Your task to perform on an android device: Open maps Image 0: 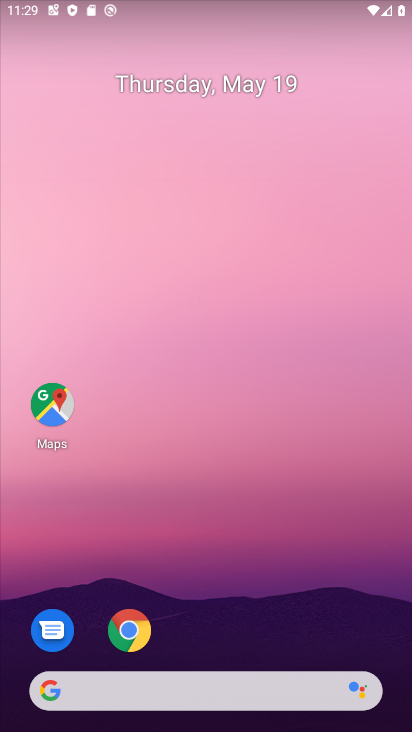
Step 0: click (54, 405)
Your task to perform on an android device: Open maps Image 1: 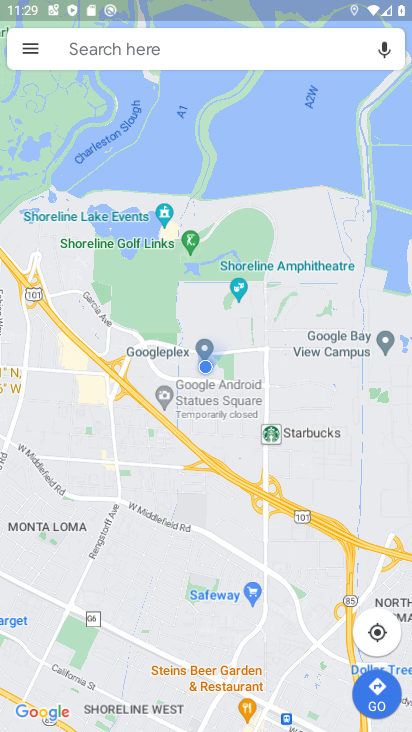
Step 1: task complete